Your task to perform on an android device: check battery use Image 0: 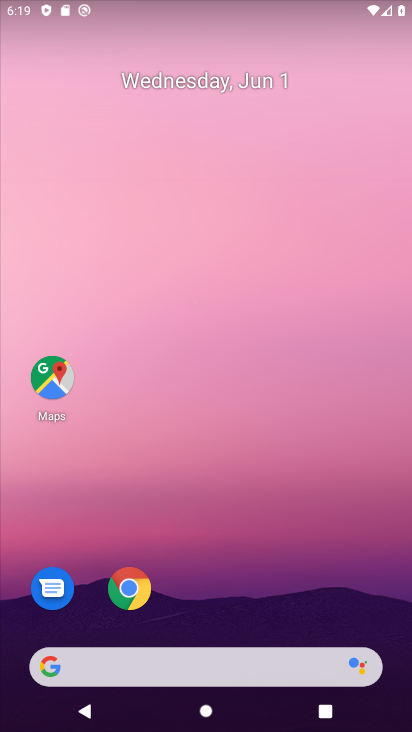
Step 0: drag from (218, 610) to (218, 282)
Your task to perform on an android device: check battery use Image 1: 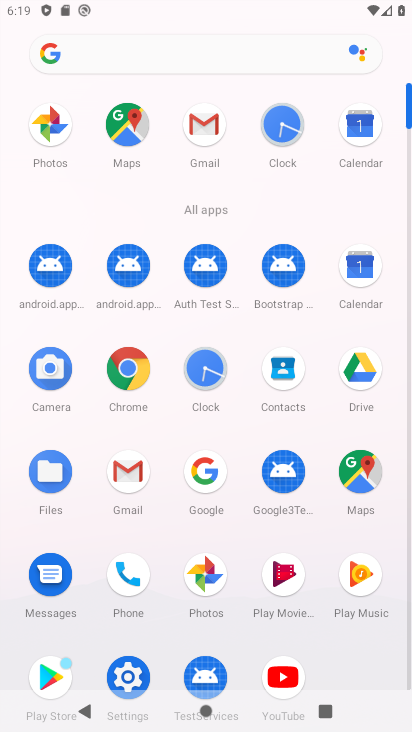
Step 1: click (138, 671)
Your task to perform on an android device: check battery use Image 2: 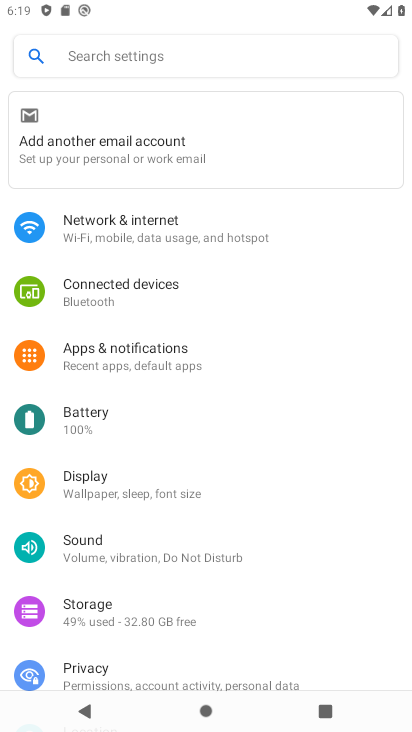
Step 2: drag from (100, 658) to (117, 557)
Your task to perform on an android device: check battery use Image 3: 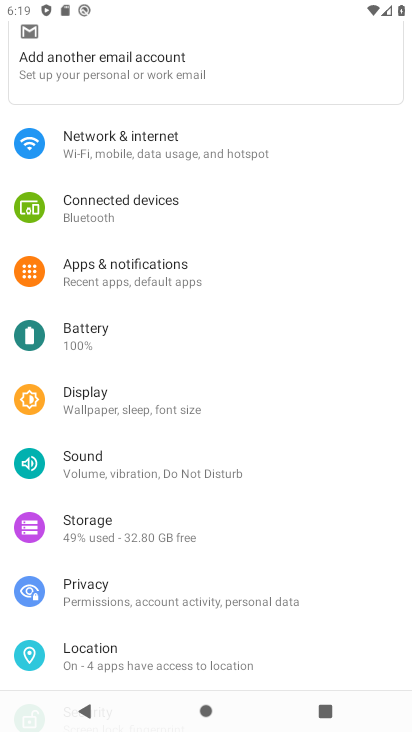
Step 3: click (77, 340)
Your task to perform on an android device: check battery use Image 4: 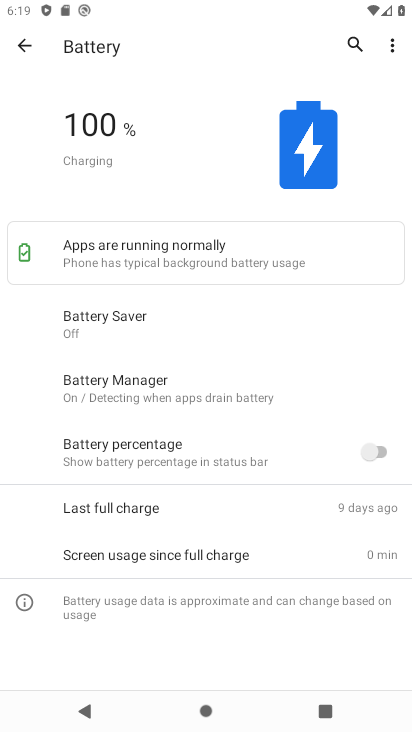
Step 4: task complete